Your task to perform on an android device: Open settings Image 0: 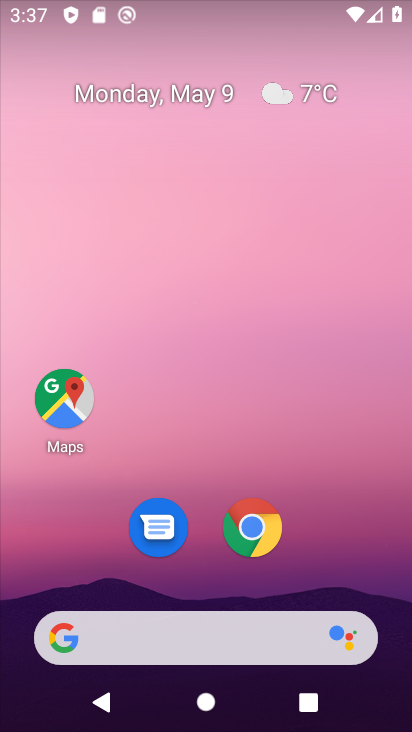
Step 0: drag from (184, 605) to (174, 164)
Your task to perform on an android device: Open settings Image 1: 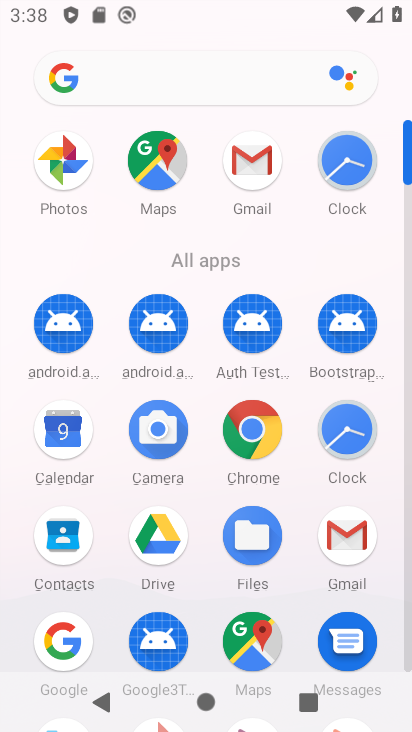
Step 1: drag from (224, 604) to (409, 177)
Your task to perform on an android device: Open settings Image 2: 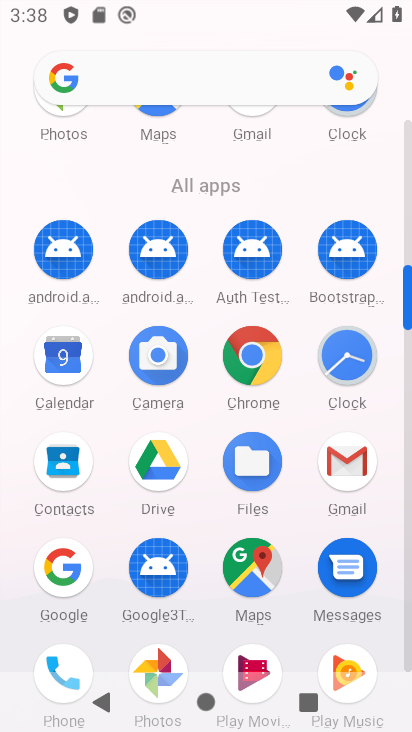
Step 2: drag from (216, 642) to (273, 102)
Your task to perform on an android device: Open settings Image 3: 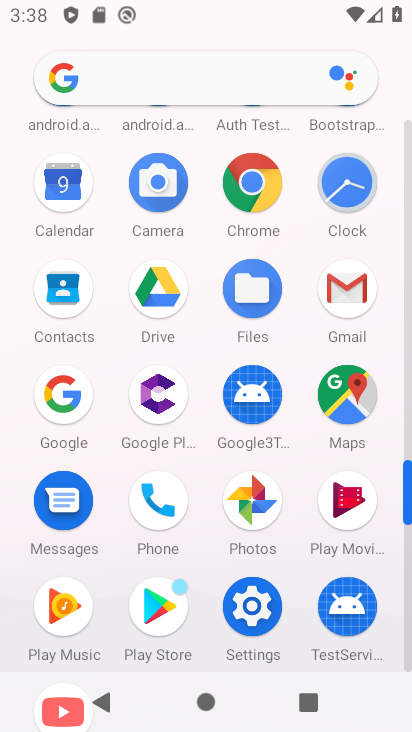
Step 3: click (256, 627)
Your task to perform on an android device: Open settings Image 4: 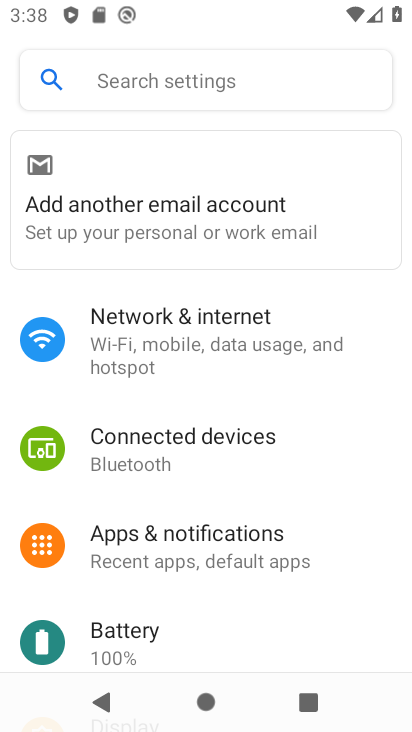
Step 4: task complete